Your task to perform on an android device: check data usage Image 0: 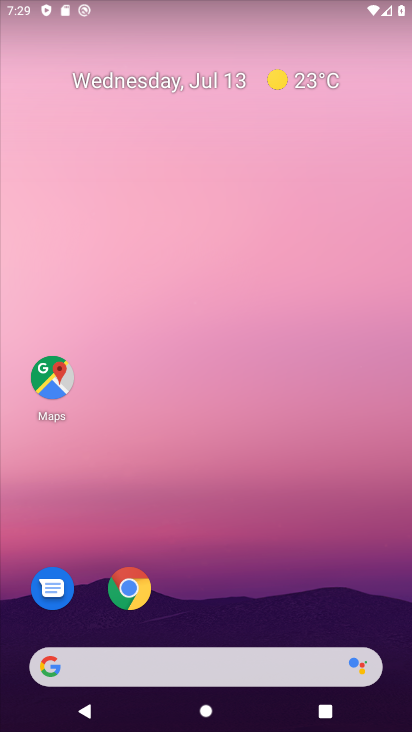
Step 0: drag from (159, 552) to (239, 14)
Your task to perform on an android device: check data usage Image 1: 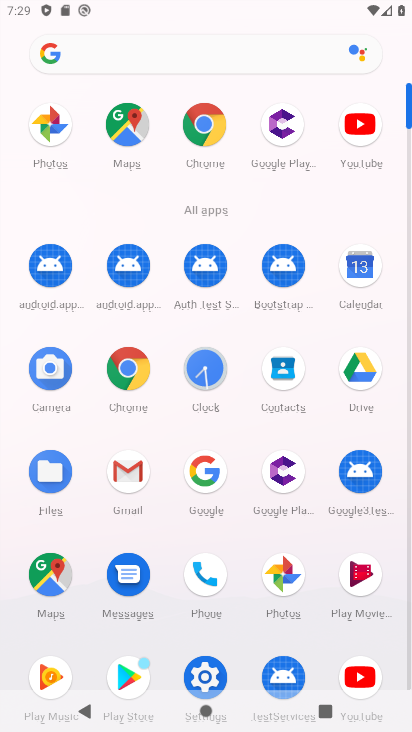
Step 1: click (208, 665)
Your task to perform on an android device: check data usage Image 2: 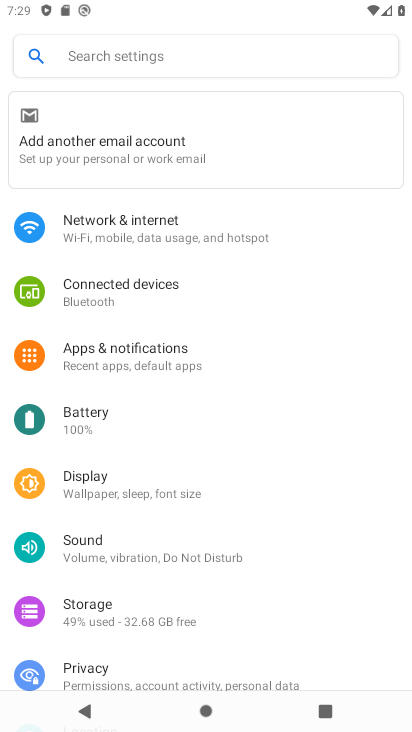
Step 2: click (178, 236)
Your task to perform on an android device: check data usage Image 3: 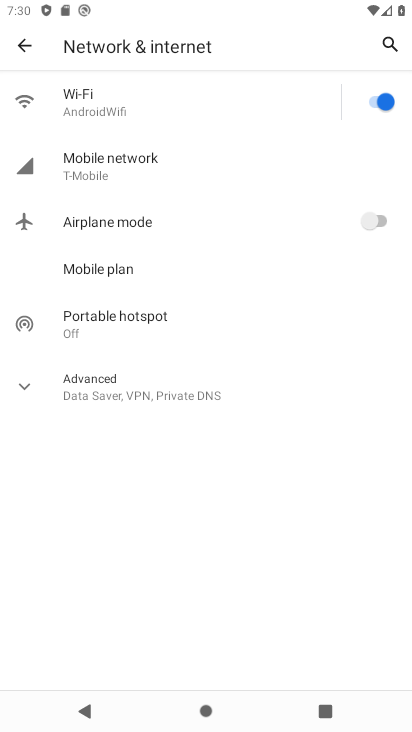
Step 3: click (133, 168)
Your task to perform on an android device: check data usage Image 4: 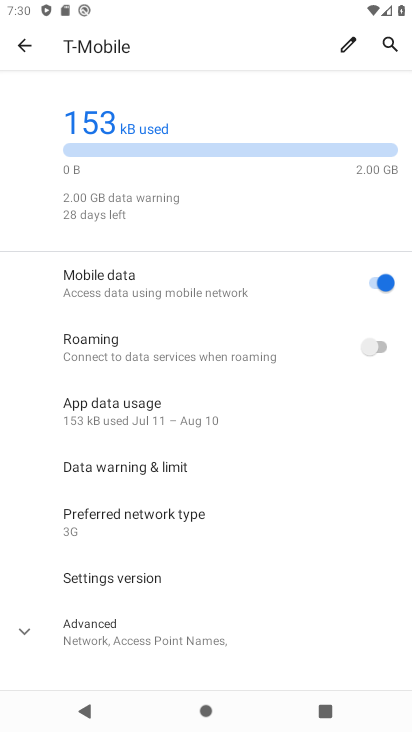
Step 4: task complete